Your task to perform on an android device: Open Reddit.com Image 0: 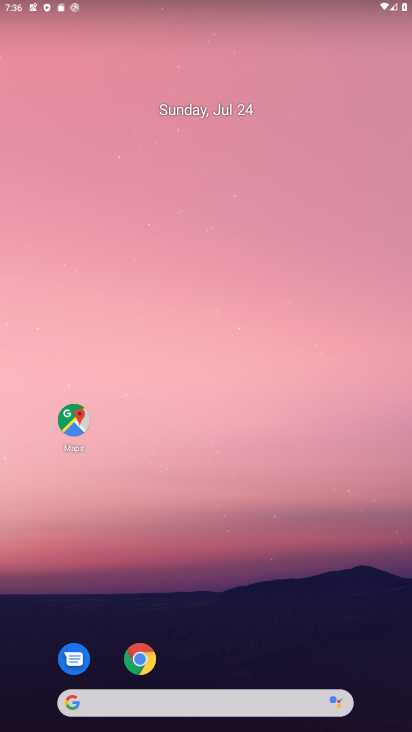
Step 0: drag from (267, 630) to (200, 115)
Your task to perform on an android device: Open Reddit.com Image 1: 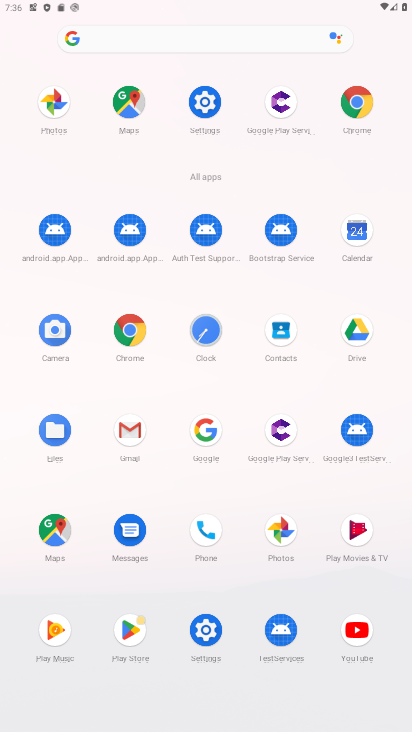
Step 1: click (134, 327)
Your task to perform on an android device: Open Reddit.com Image 2: 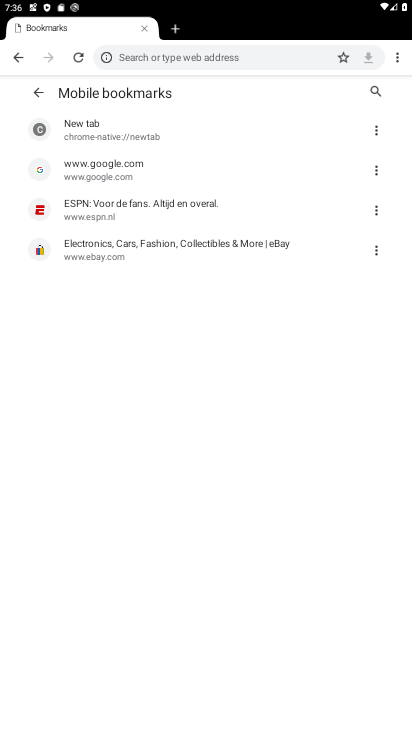
Step 2: click (136, 64)
Your task to perform on an android device: Open Reddit.com Image 3: 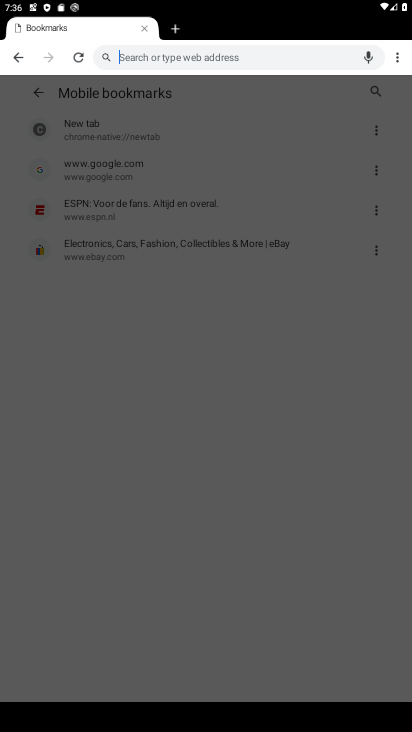
Step 3: type "reddit.com"
Your task to perform on an android device: Open Reddit.com Image 4: 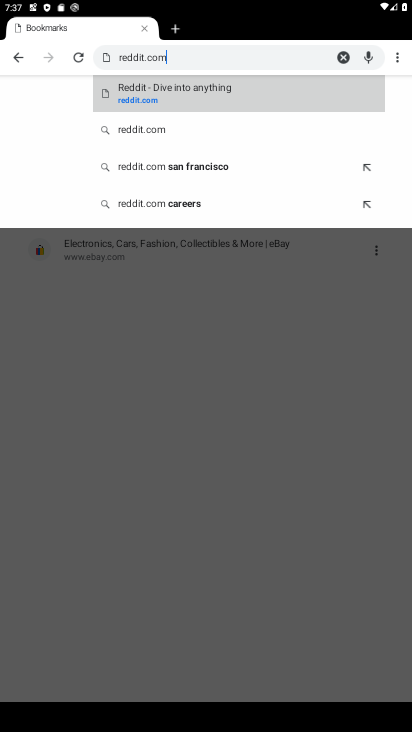
Step 4: click (134, 93)
Your task to perform on an android device: Open Reddit.com Image 5: 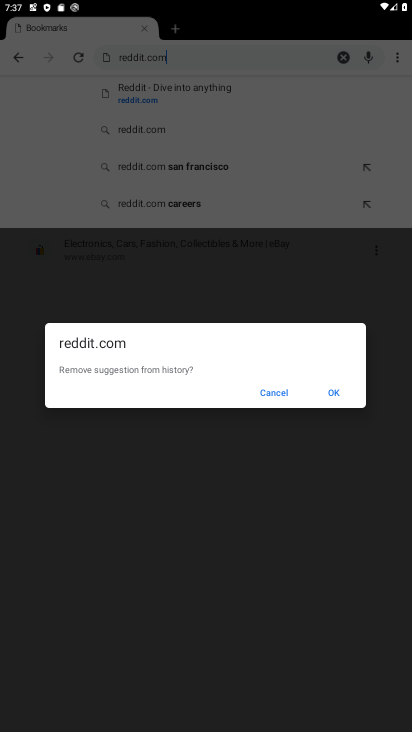
Step 5: click (263, 391)
Your task to perform on an android device: Open Reddit.com Image 6: 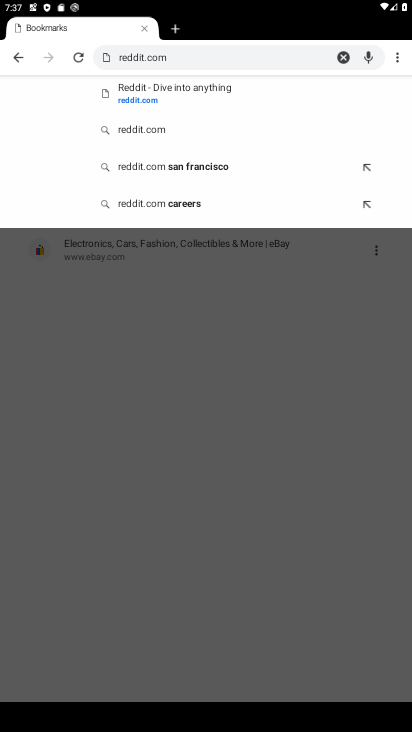
Step 6: click (147, 100)
Your task to perform on an android device: Open Reddit.com Image 7: 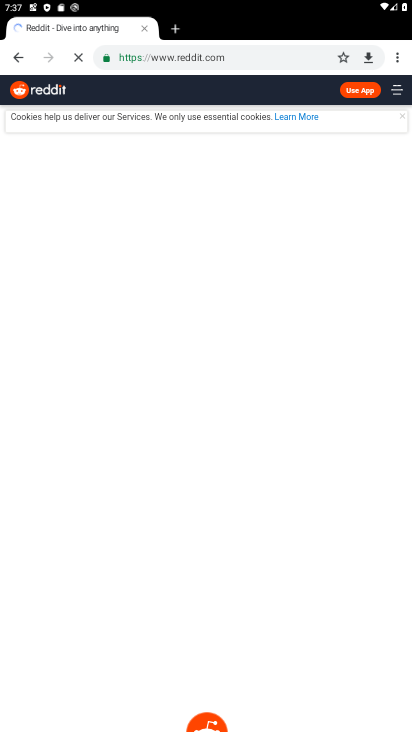
Step 7: task complete